Your task to perform on an android device: Open the web browser Image 0: 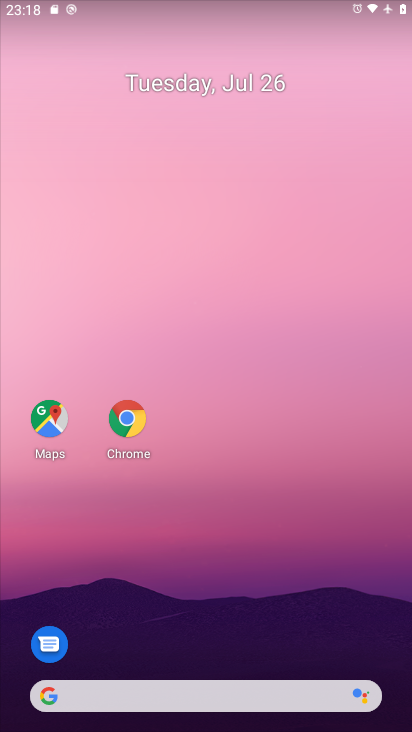
Step 0: click (128, 435)
Your task to perform on an android device: Open the web browser Image 1: 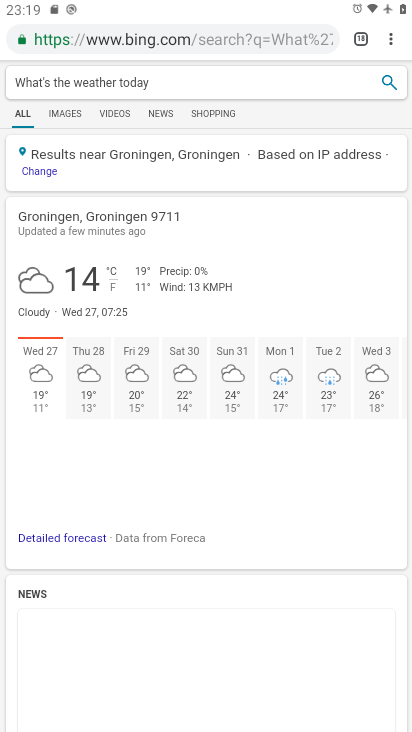
Step 1: task complete